Your task to perform on an android device: Go to battery settings Image 0: 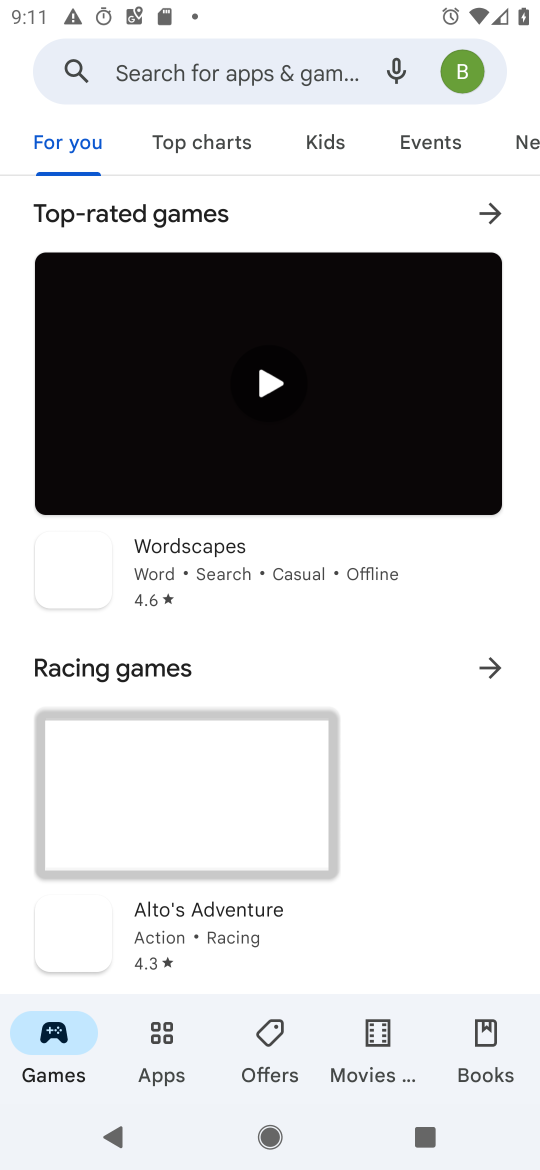
Step 0: drag from (317, 988) to (346, 183)
Your task to perform on an android device: Go to battery settings Image 1: 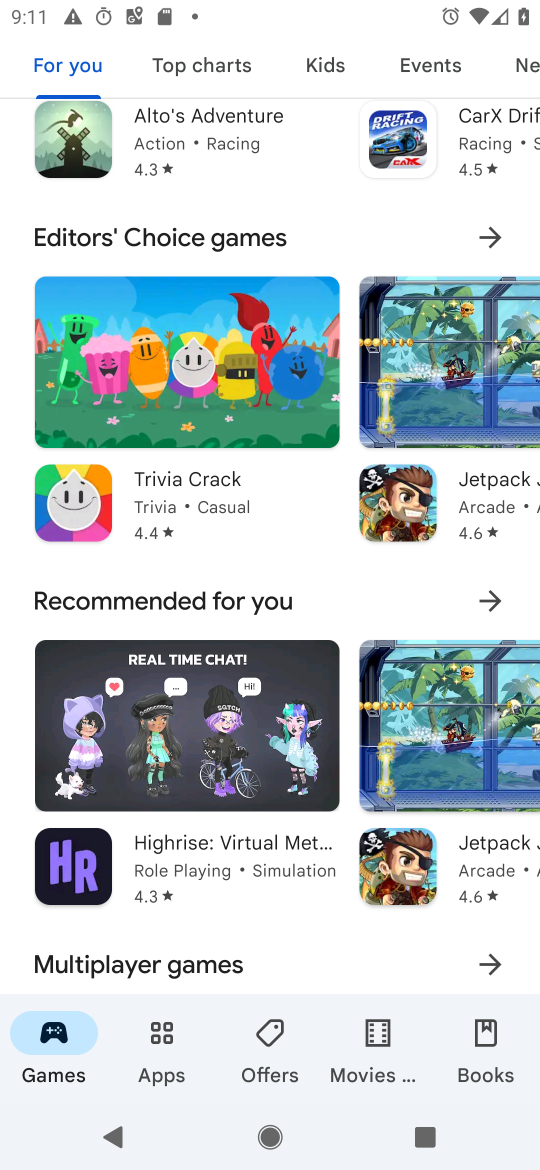
Step 1: press home button
Your task to perform on an android device: Go to battery settings Image 2: 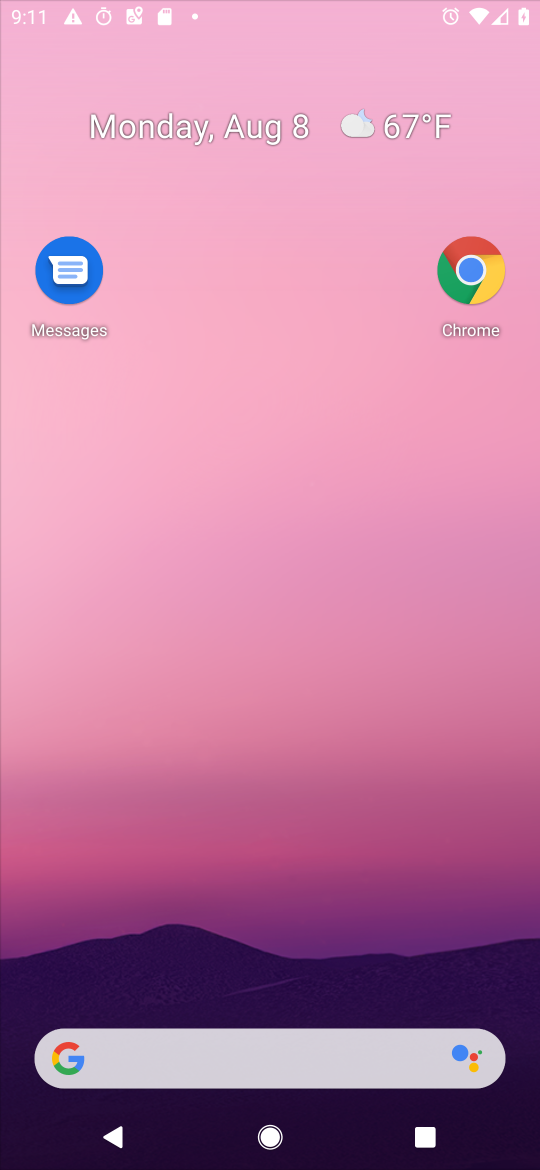
Step 2: drag from (250, 992) to (276, 107)
Your task to perform on an android device: Go to battery settings Image 3: 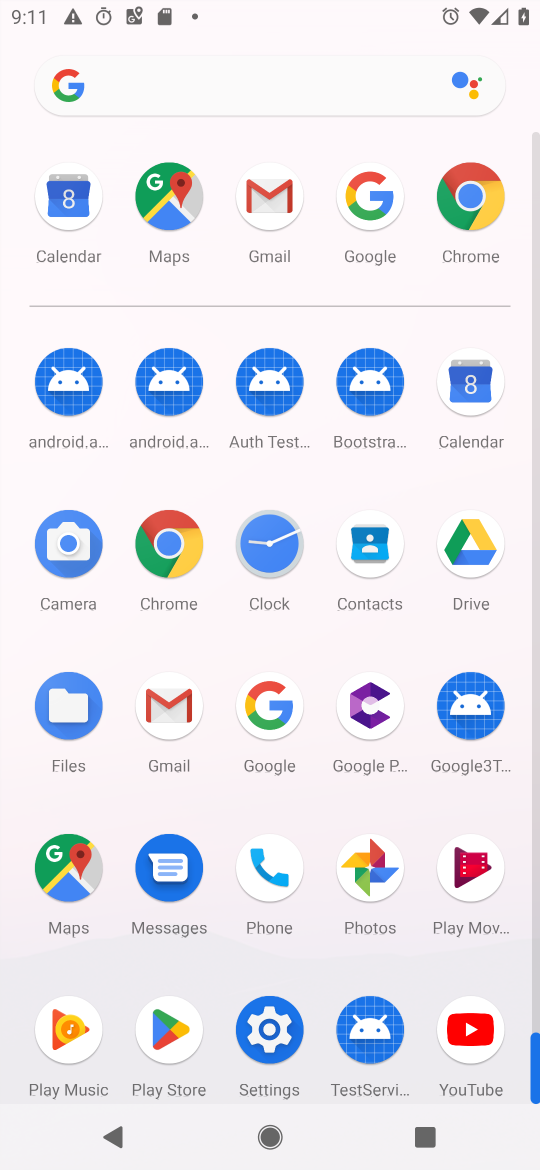
Step 3: click (465, 188)
Your task to perform on an android device: Go to battery settings Image 4: 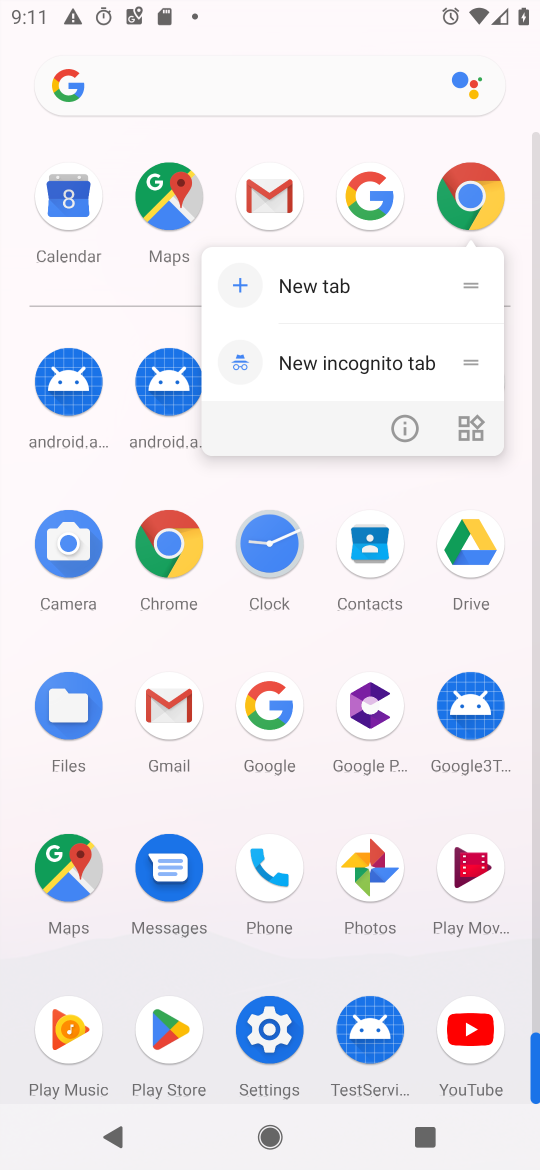
Step 4: click (402, 426)
Your task to perform on an android device: Go to battery settings Image 5: 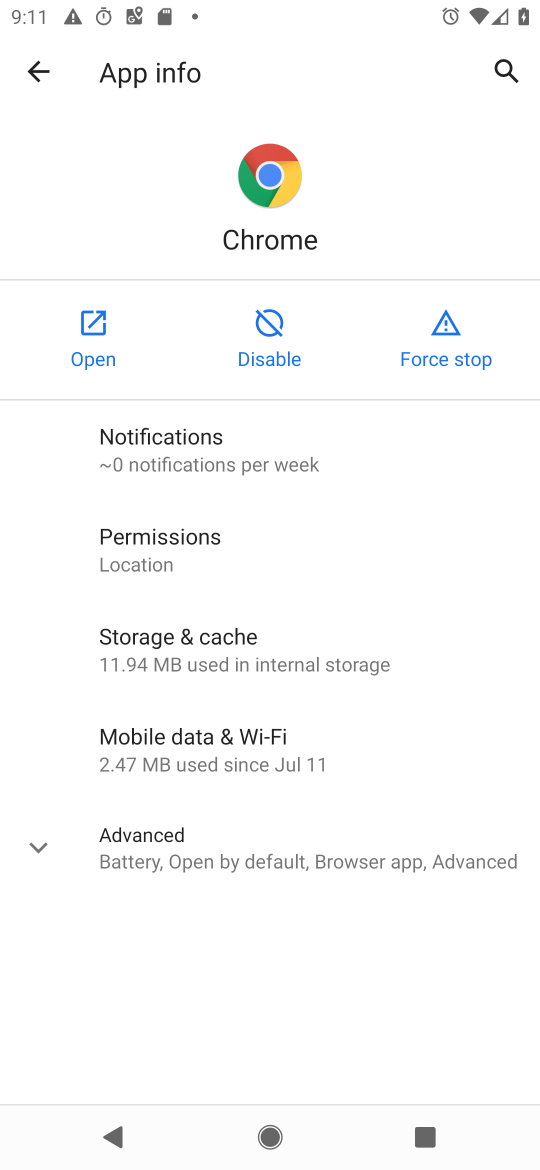
Step 5: click (99, 327)
Your task to perform on an android device: Go to battery settings Image 6: 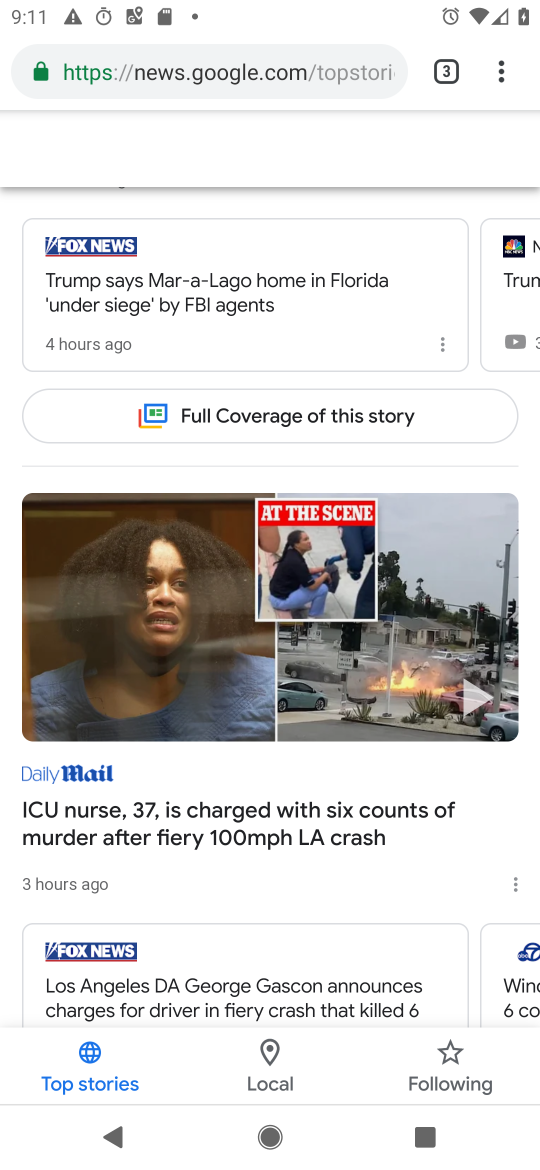
Step 6: click (230, 66)
Your task to perform on an android device: Go to battery settings Image 7: 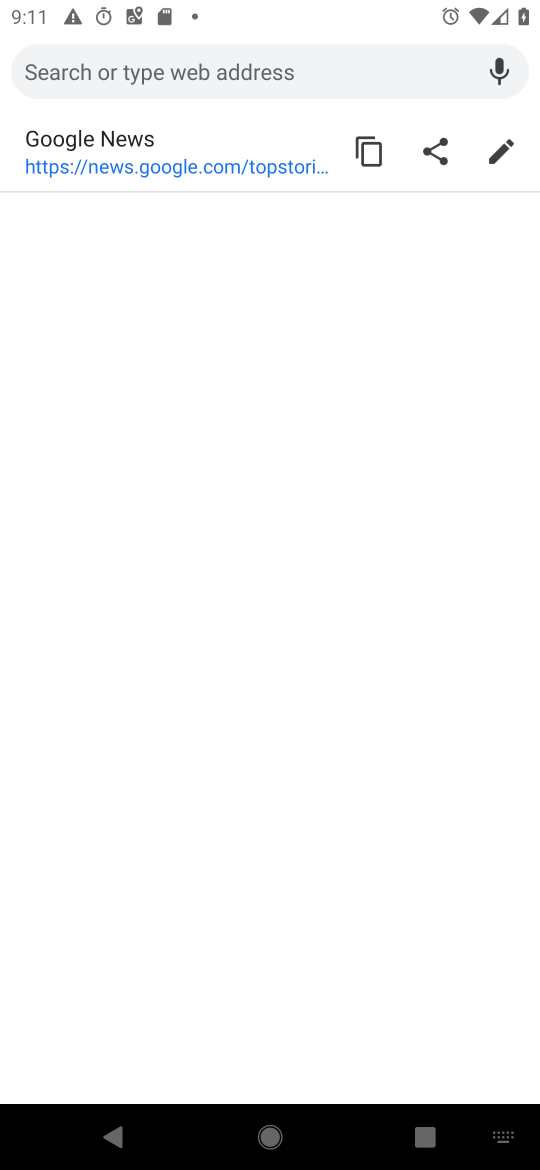
Step 7: press home button
Your task to perform on an android device: Go to battery settings Image 8: 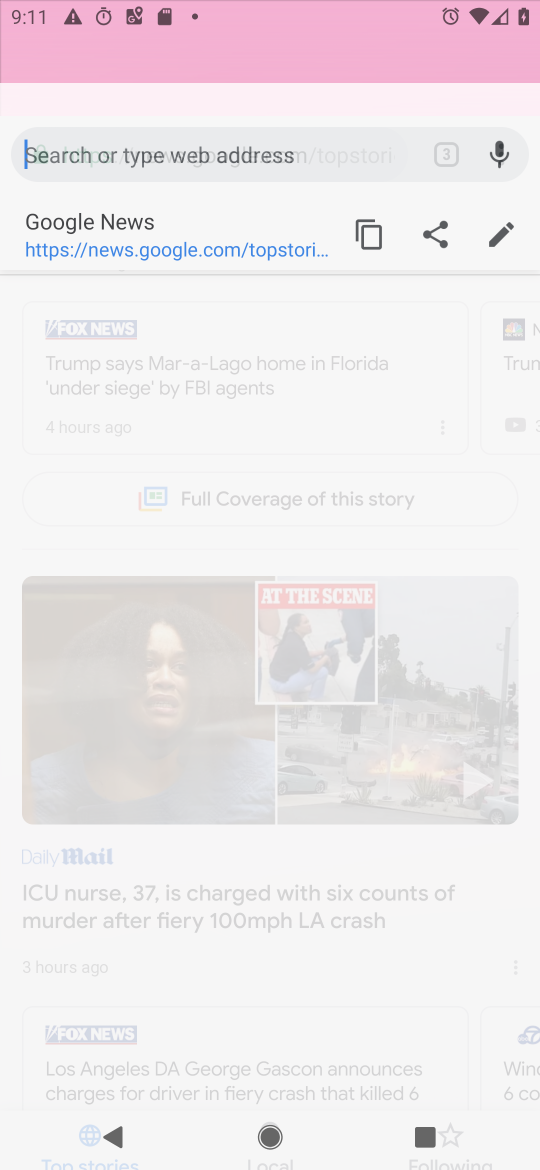
Step 8: click (256, 323)
Your task to perform on an android device: Go to battery settings Image 9: 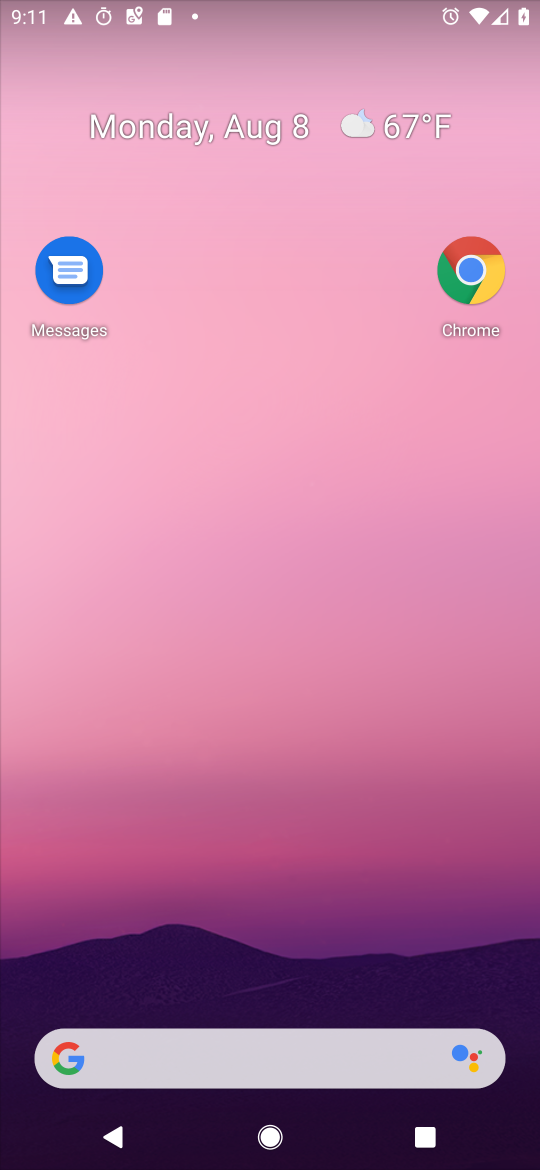
Step 9: drag from (268, 867) to (309, 184)
Your task to perform on an android device: Go to battery settings Image 10: 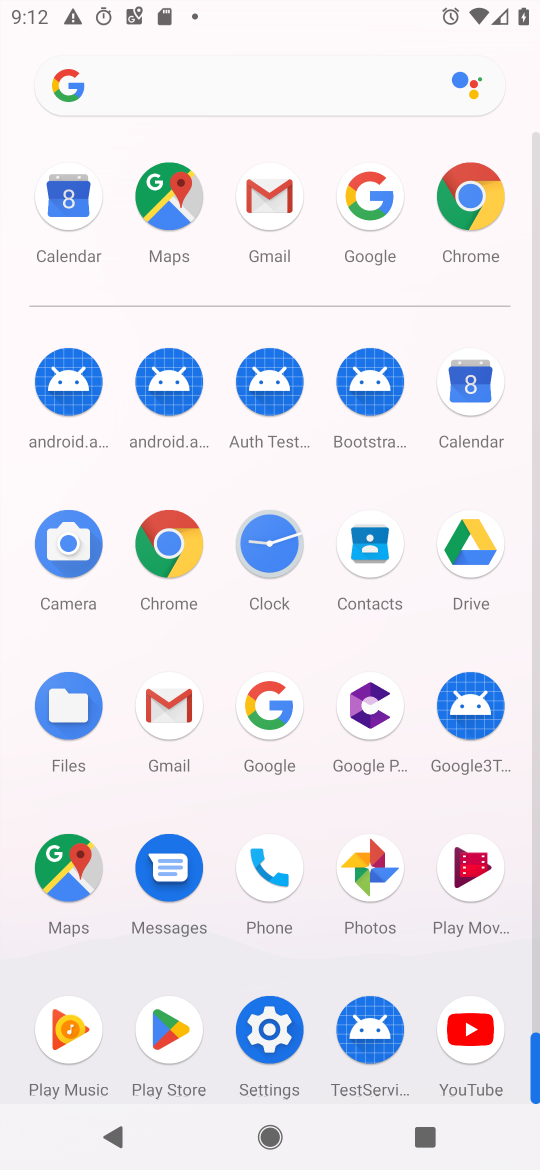
Step 10: click (261, 1022)
Your task to perform on an android device: Go to battery settings Image 11: 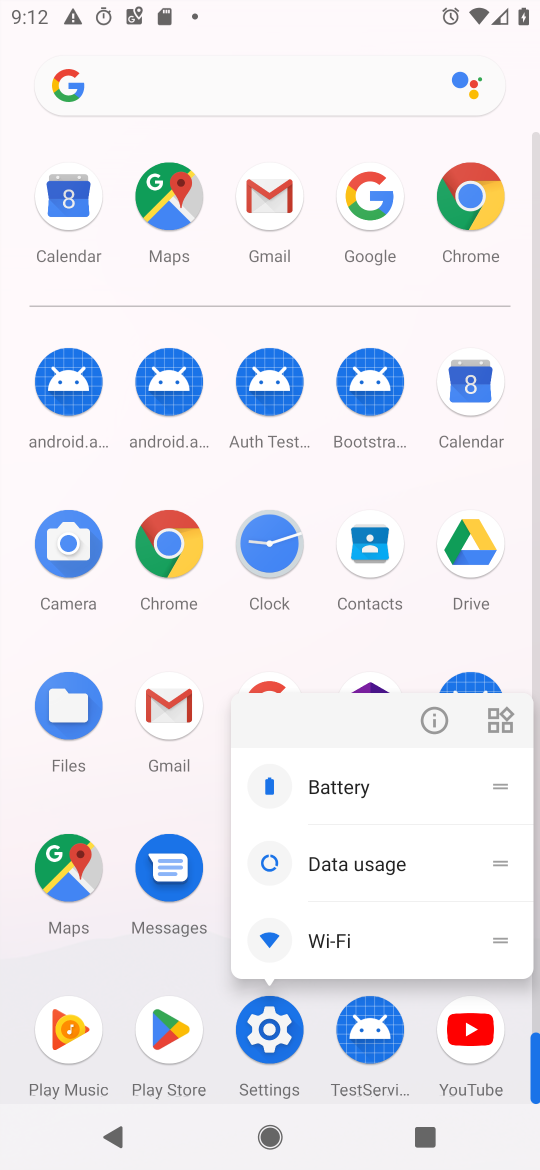
Step 11: click (435, 701)
Your task to perform on an android device: Go to battery settings Image 12: 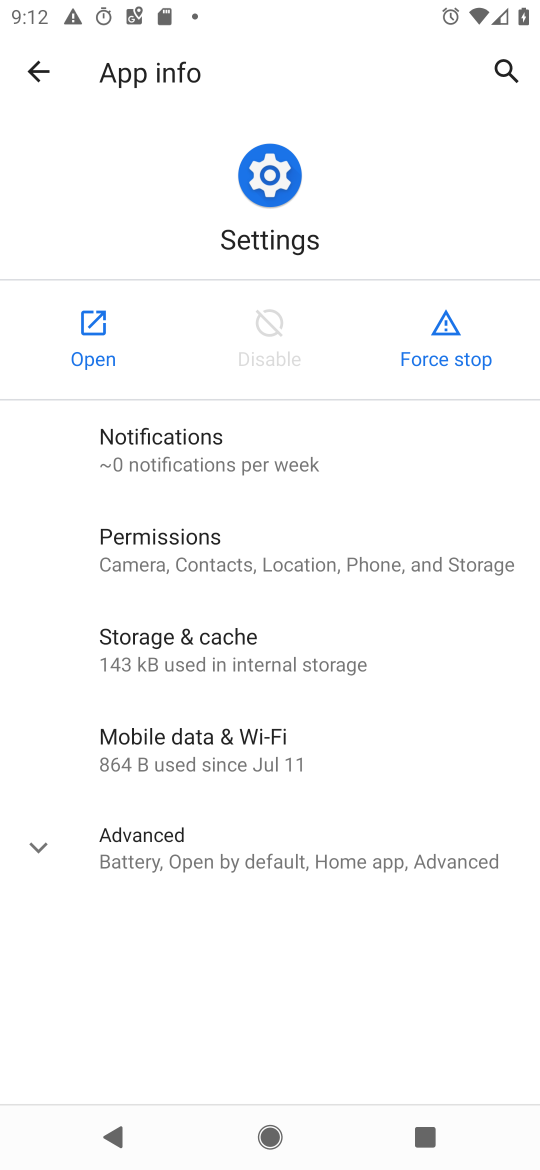
Step 12: click (87, 357)
Your task to perform on an android device: Go to battery settings Image 13: 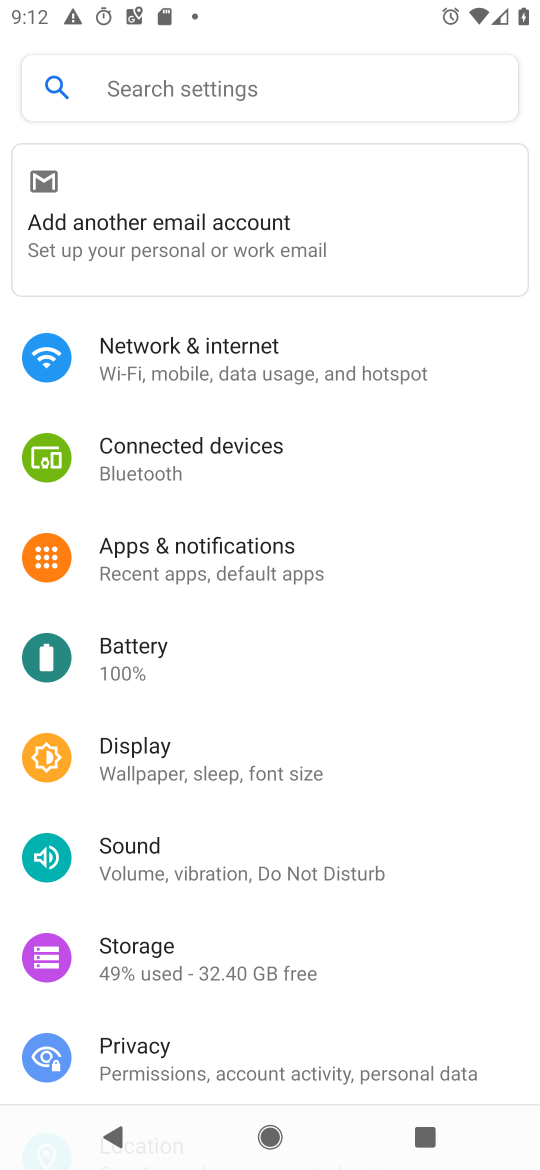
Step 13: click (127, 666)
Your task to perform on an android device: Go to battery settings Image 14: 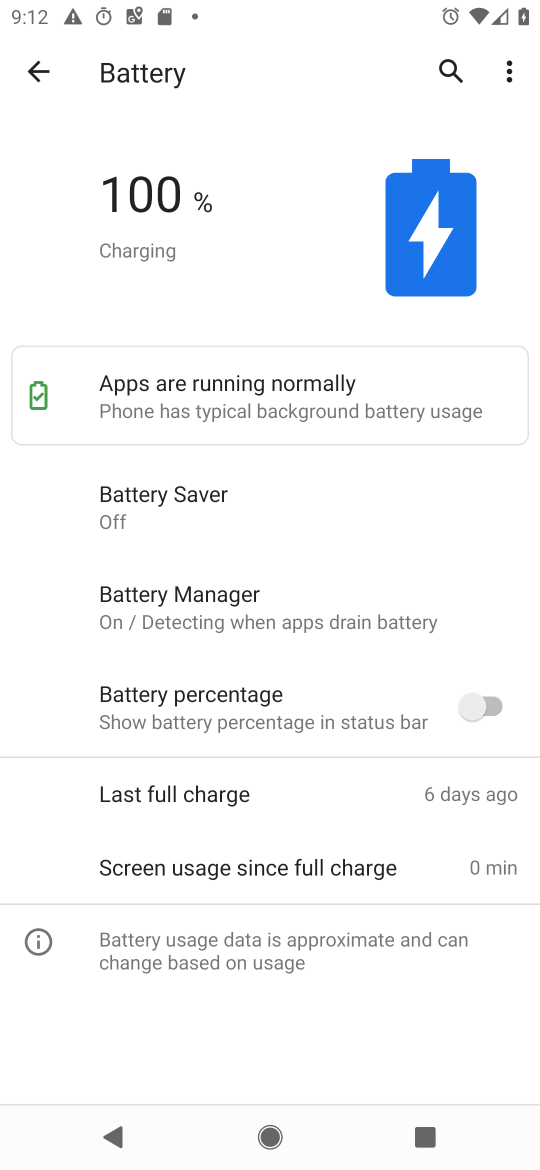
Step 14: task complete